Your task to perform on an android device: allow notifications from all sites in the chrome app Image 0: 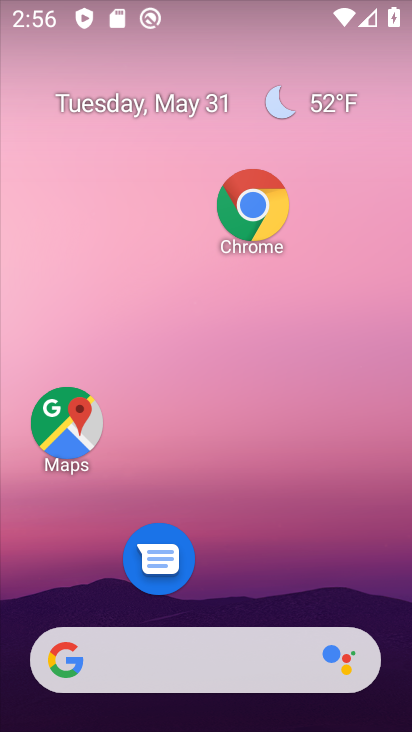
Step 0: click (246, 212)
Your task to perform on an android device: allow notifications from all sites in the chrome app Image 1: 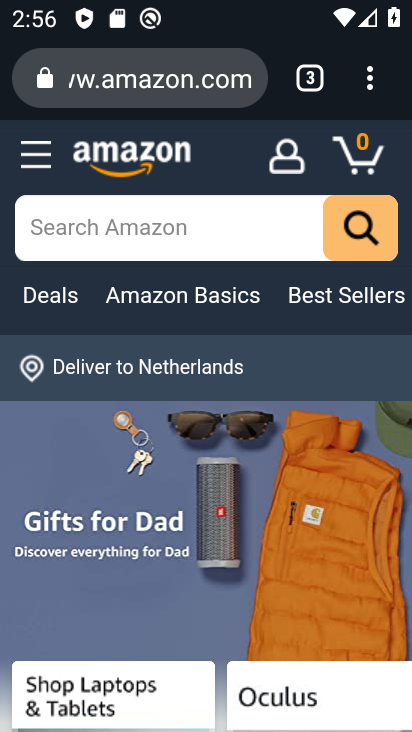
Step 1: drag from (368, 70) to (122, 625)
Your task to perform on an android device: allow notifications from all sites in the chrome app Image 2: 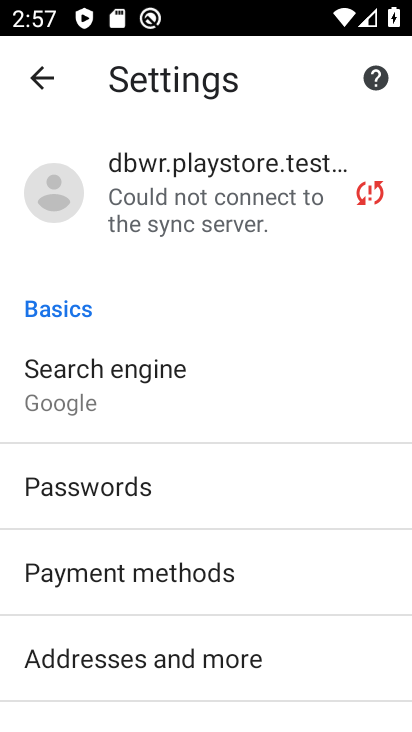
Step 2: drag from (250, 609) to (242, 260)
Your task to perform on an android device: allow notifications from all sites in the chrome app Image 3: 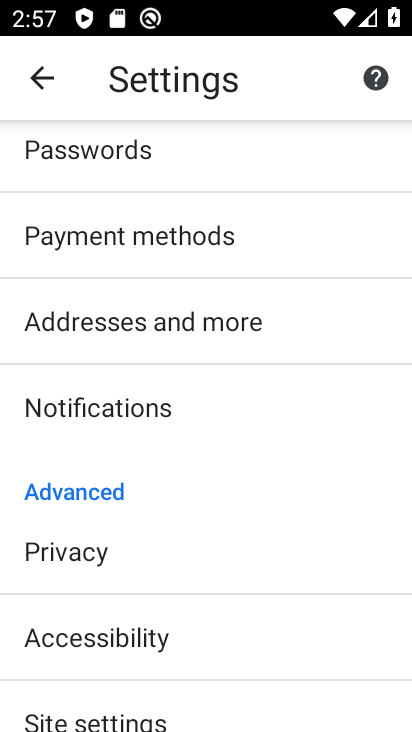
Step 3: drag from (132, 648) to (166, 409)
Your task to perform on an android device: allow notifications from all sites in the chrome app Image 4: 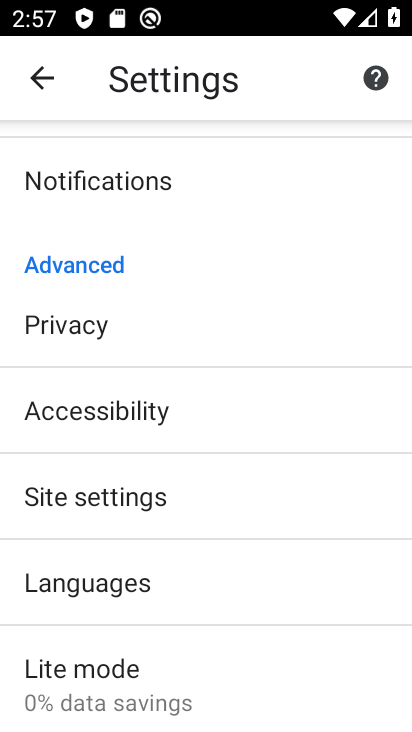
Step 4: click (148, 474)
Your task to perform on an android device: allow notifications from all sites in the chrome app Image 5: 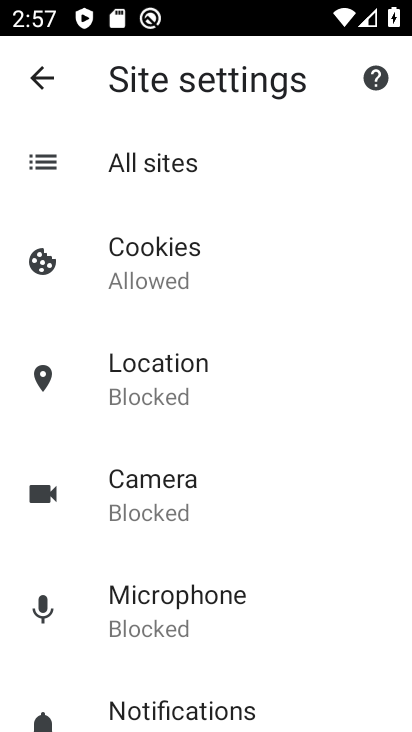
Step 5: click (123, 153)
Your task to perform on an android device: allow notifications from all sites in the chrome app Image 6: 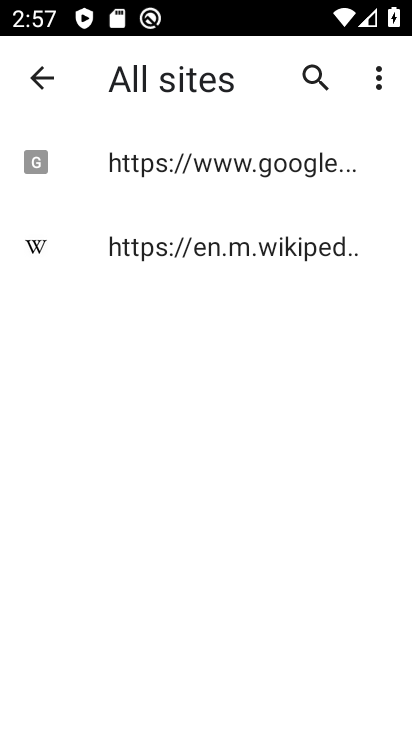
Step 6: click (203, 168)
Your task to perform on an android device: allow notifications from all sites in the chrome app Image 7: 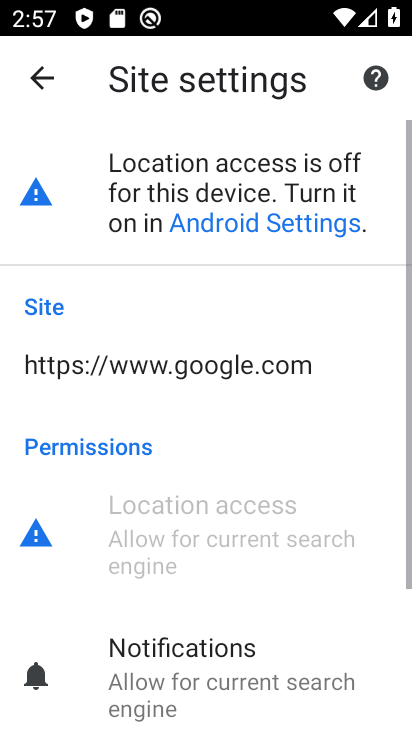
Step 7: drag from (144, 573) to (172, 214)
Your task to perform on an android device: allow notifications from all sites in the chrome app Image 8: 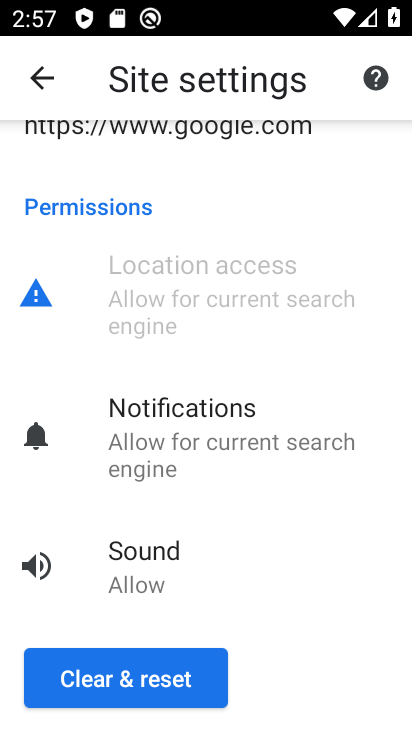
Step 8: click (134, 402)
Your task to perform on an android device: allow notifications from all sites in the chrome app Image 9: 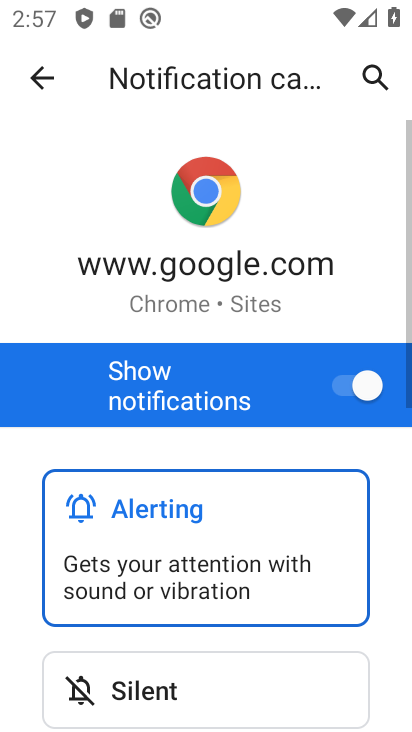
Step 9: click (330, 369)
Your task to perform on an android device: allow notifications from all sites in the chrome app Image 10: 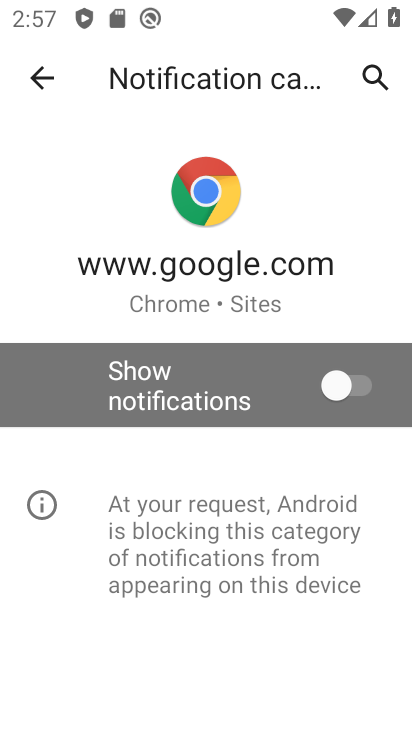
Step 10: task complete